Your task to perform on an android device: manage bookmarks in the chrome app Image 0: 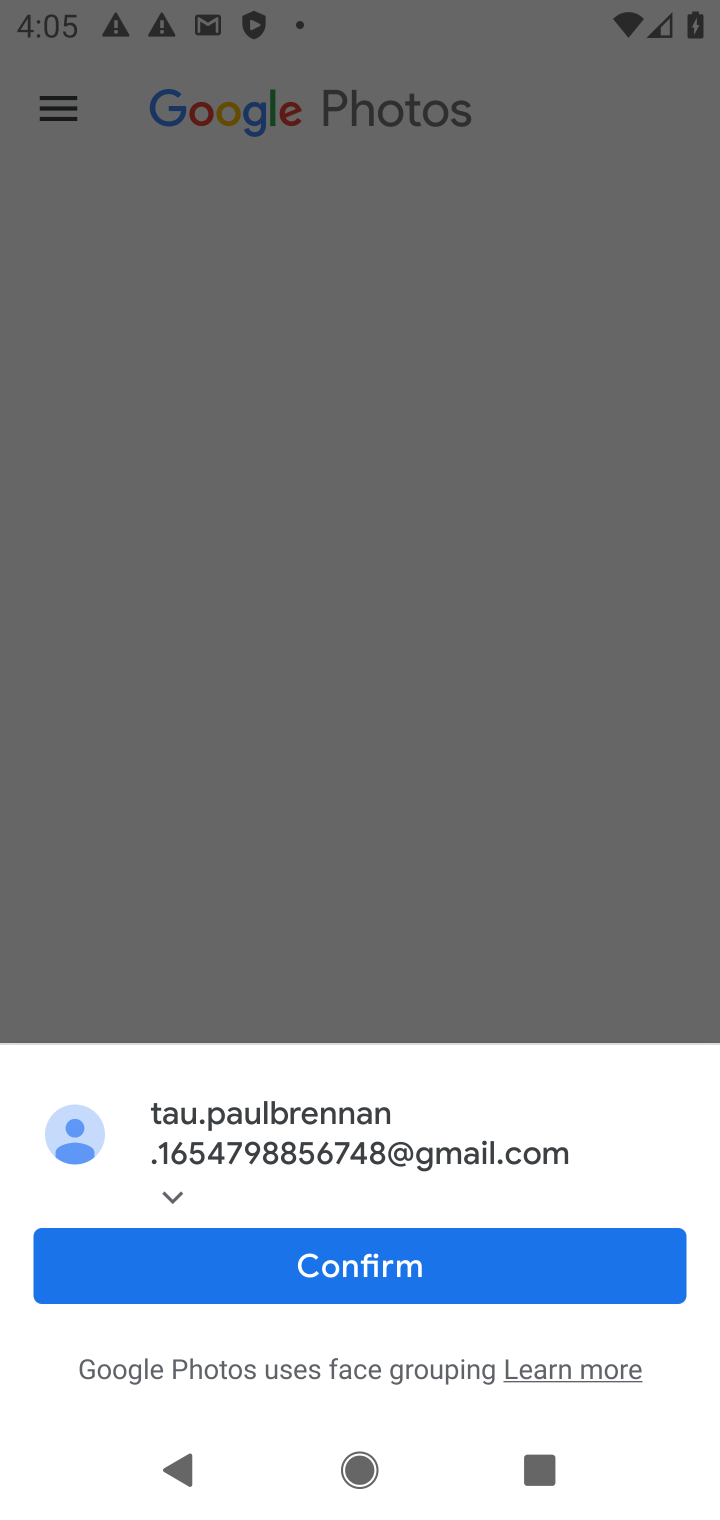
Step 0: press home button
Your task to perform on an android device: manage bookmarks in the chrome app Image 1: 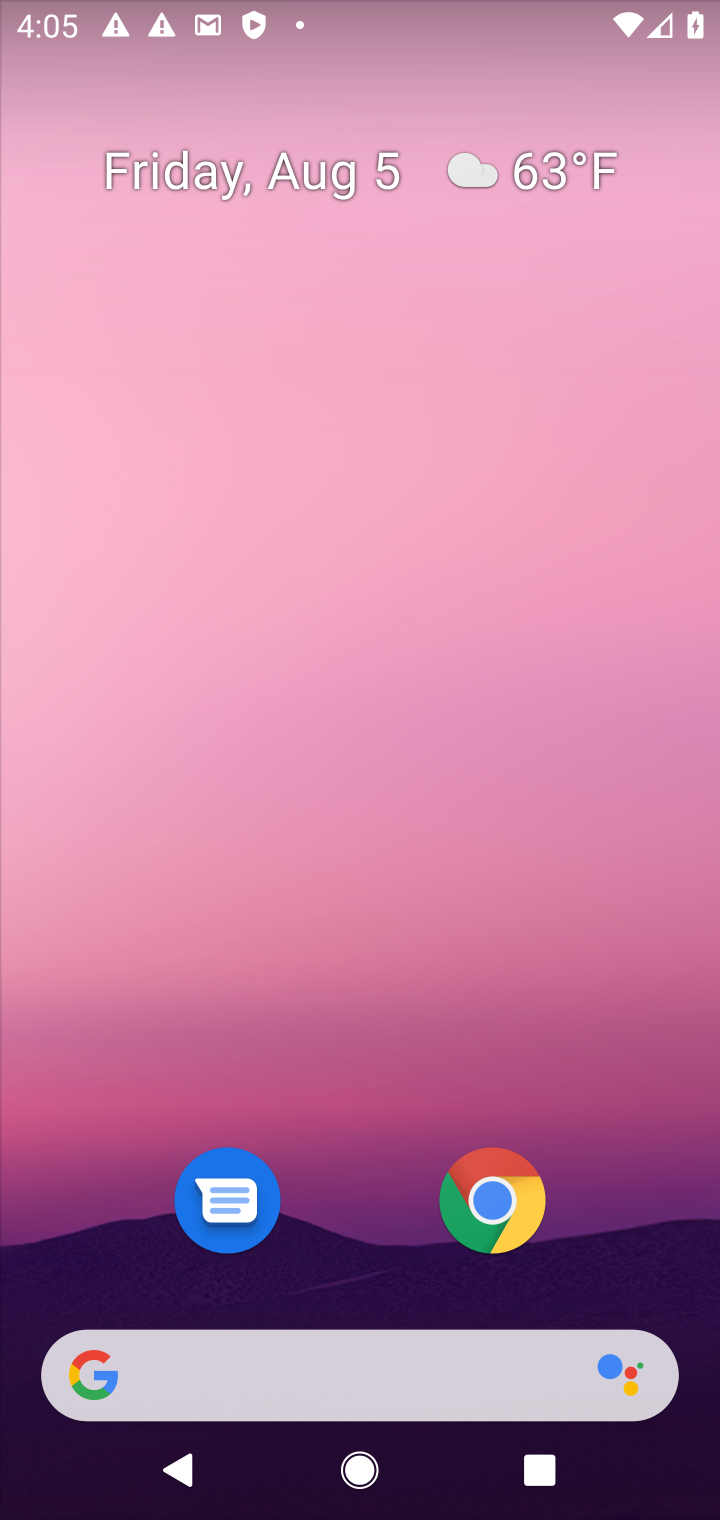
Step 1: click (521, 1212)
Your task to perform on an android device: manage bookmarks in the chrome app Image 2: 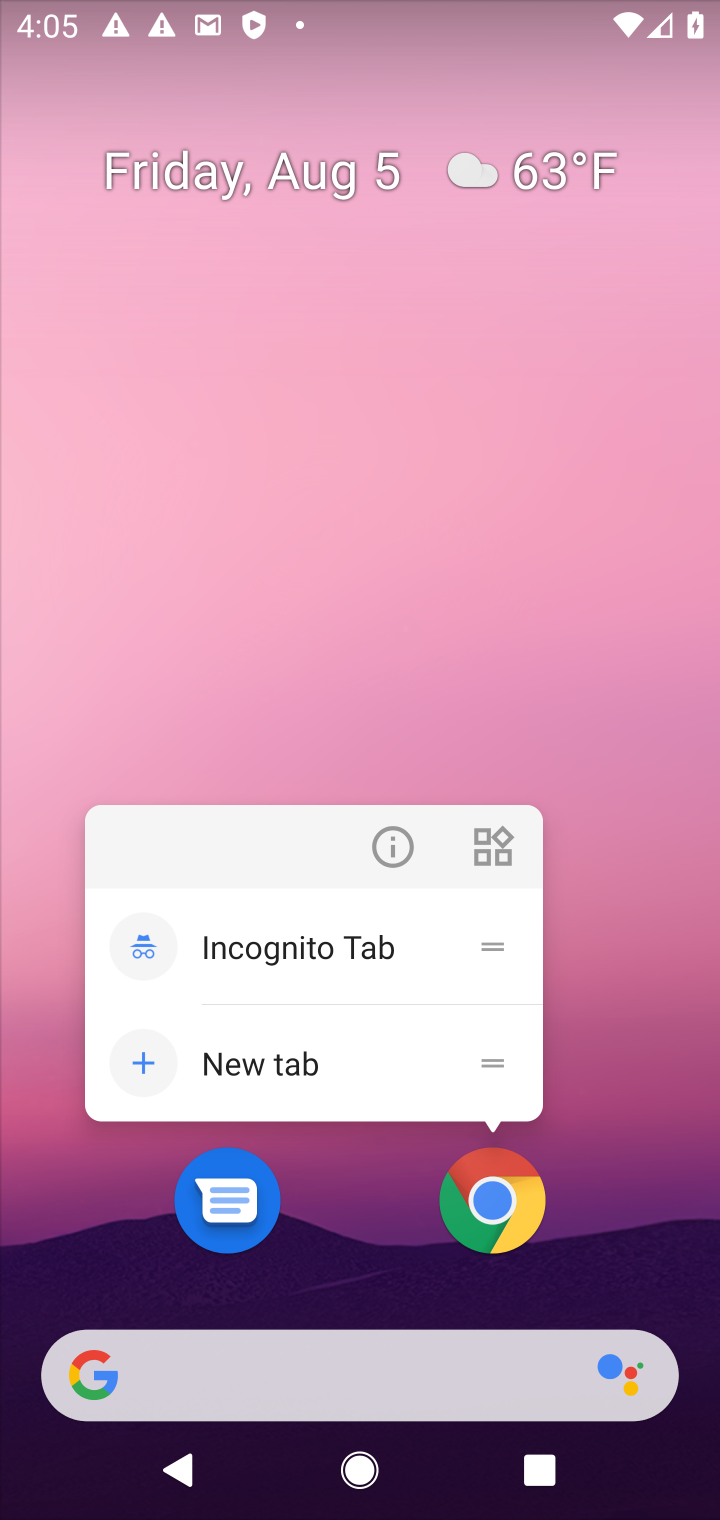
Step 2: click (521, 1212)
Your task to perform on an android device: manage bookmarks in the chrome app Image 3: 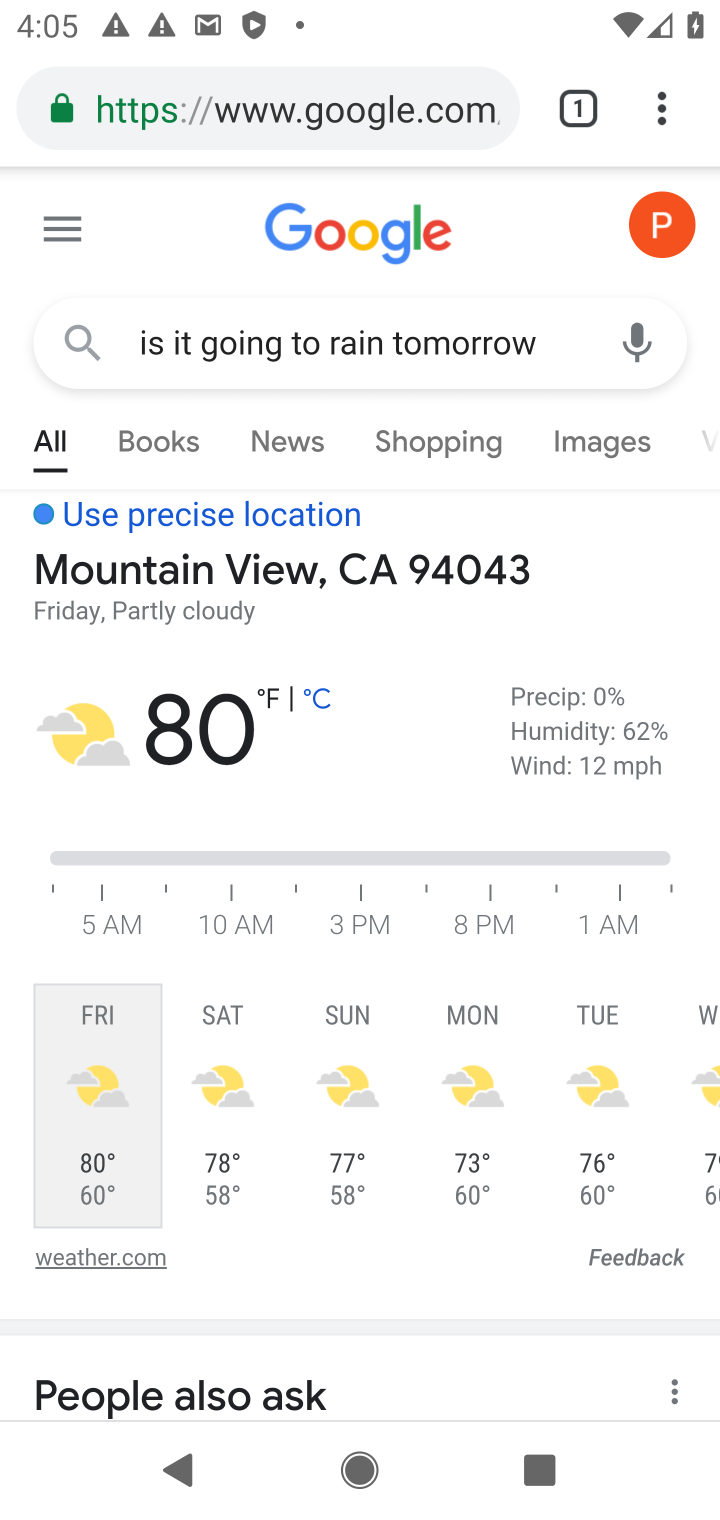
Step 3: click (658, 120)
Your task to perform on an android device: manage bookmarks in the chrome app Image 4: 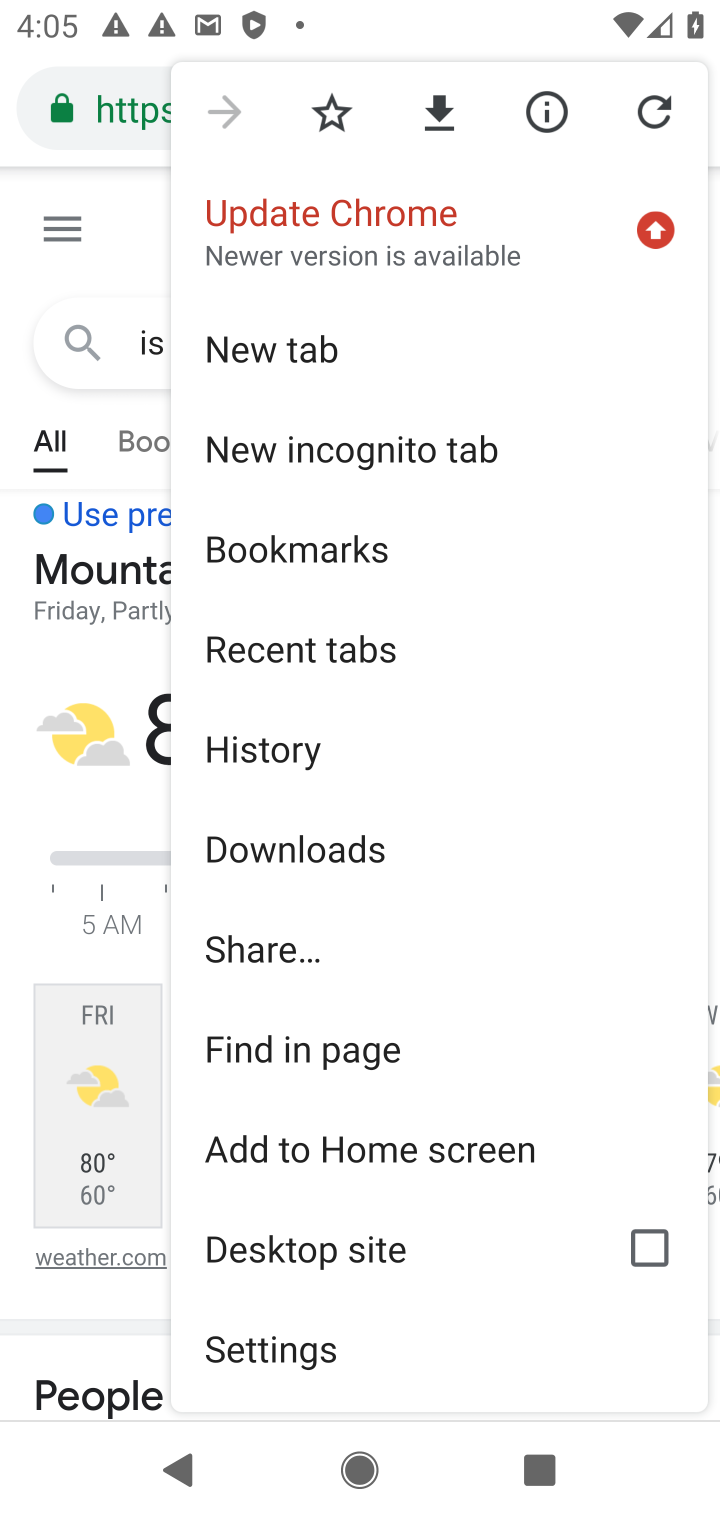
Step 4: drag from (375, 1324) to (333, 1053)
Your task to perform on an android device: manage bookmarks in the chrome app Image 5: 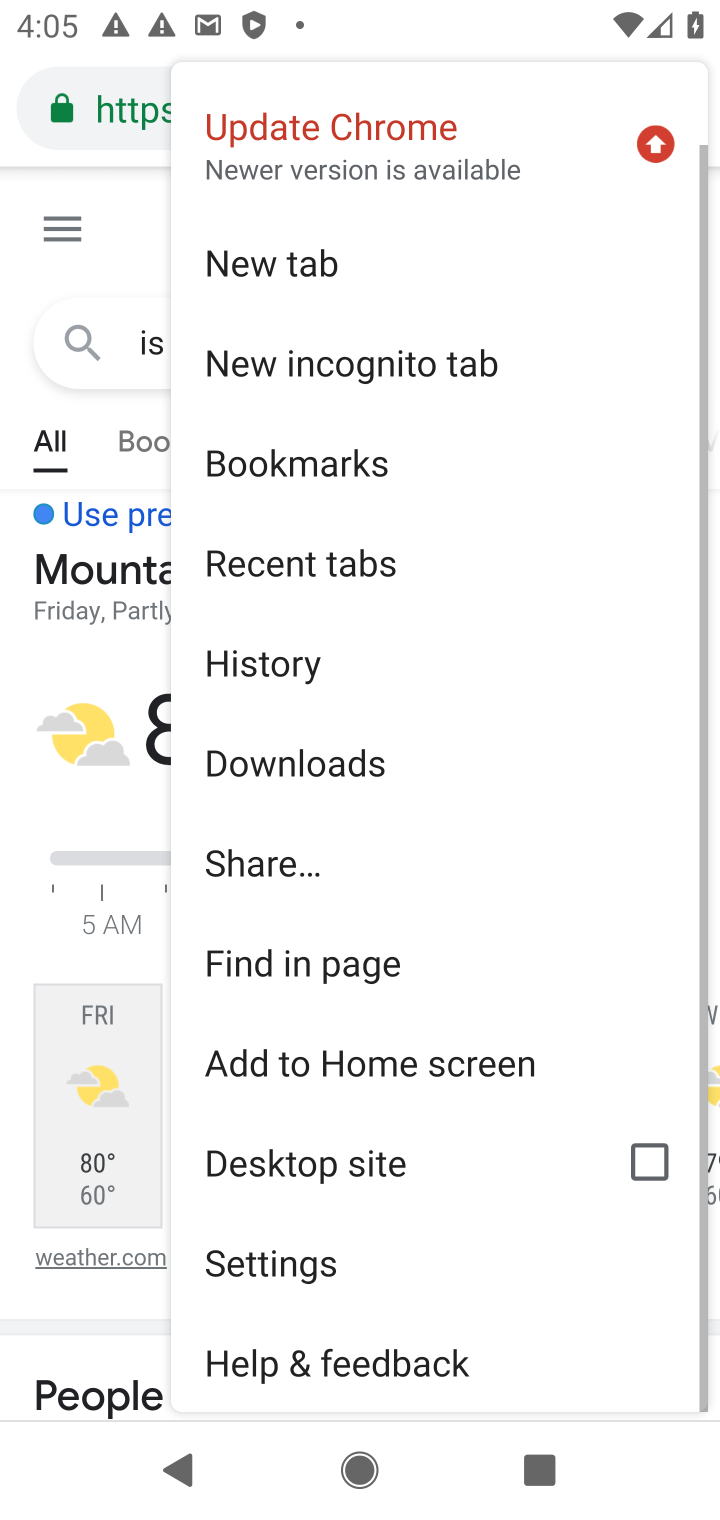
Step 5: click (386, 462)
Your task to perform on an android device: manage bookmarks in the chrome app Image 6: 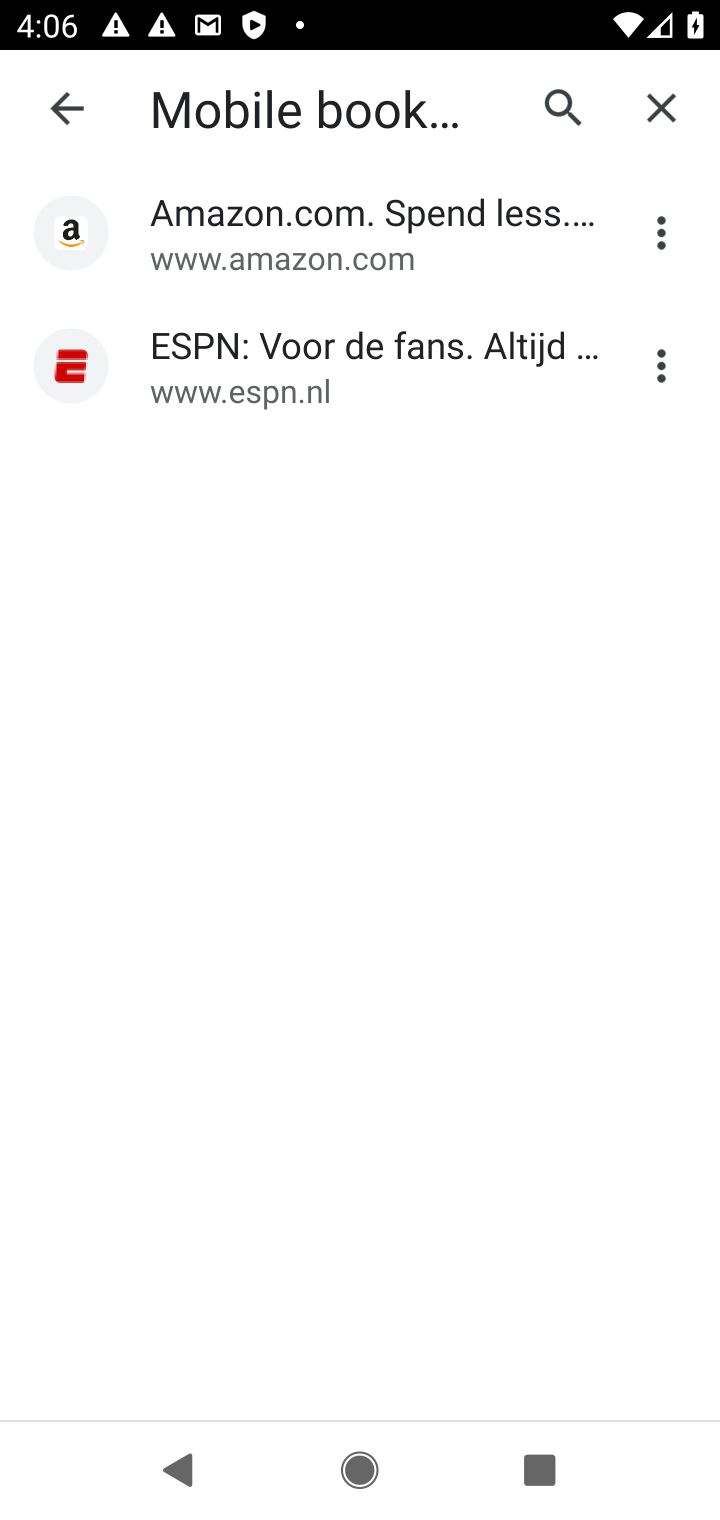
Step 6: click (443, 364)
Your task to perform on an android device: manage bookmarks in the chrome app Image 7: 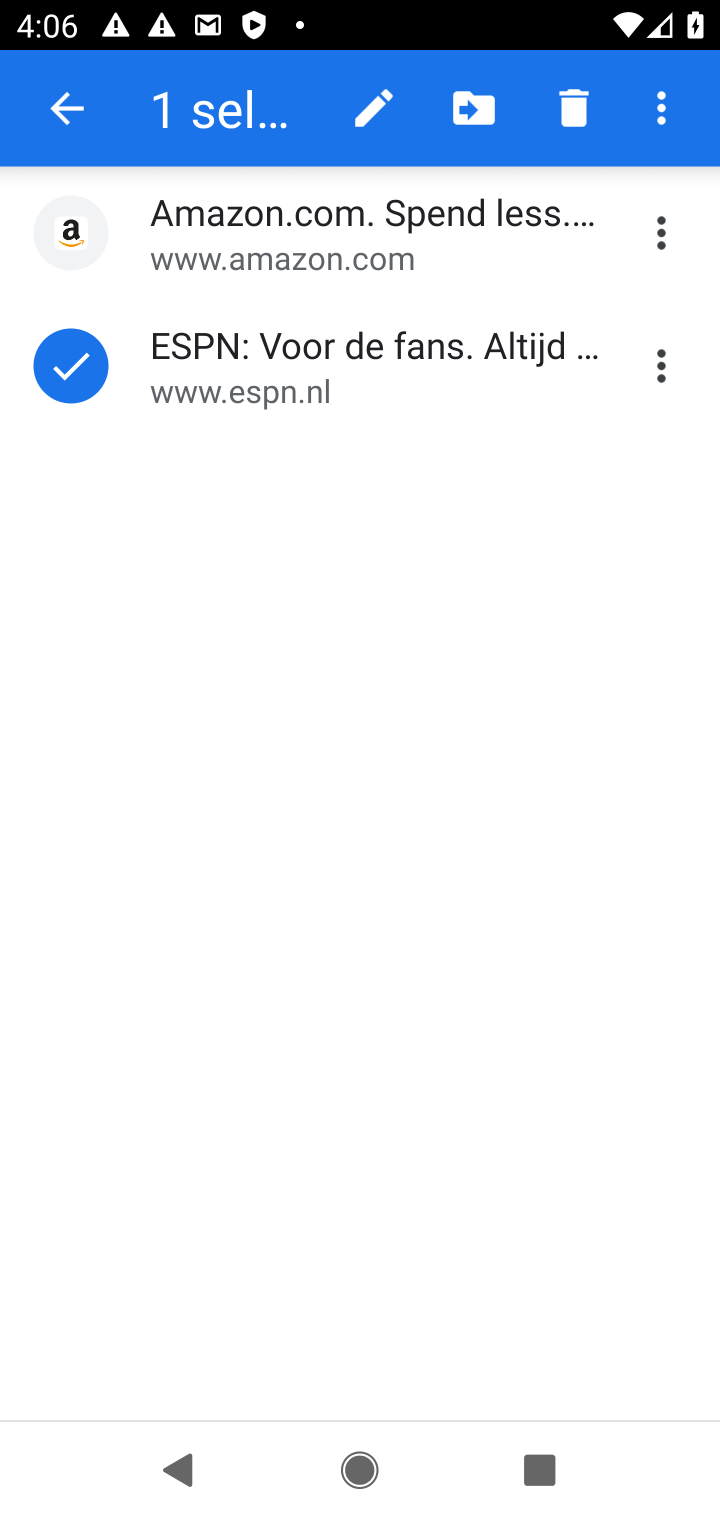
Step 7: click (476, 116)
Your task to perform on an android device: manage bookmarks in the chrome app Image 8: 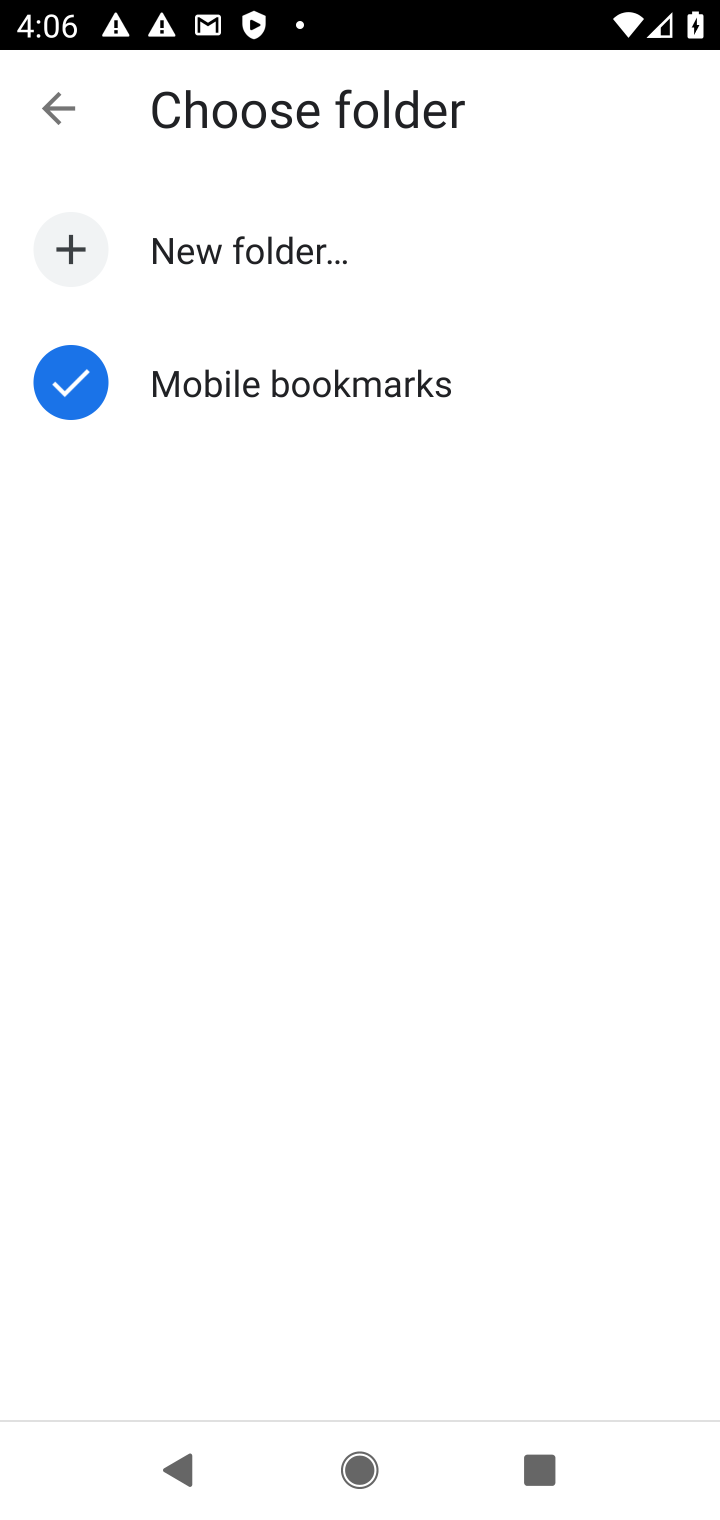
Step 8: click (431, 374)
Your task to perform on an android device: manage bookmarks in the chrome app Image 9: 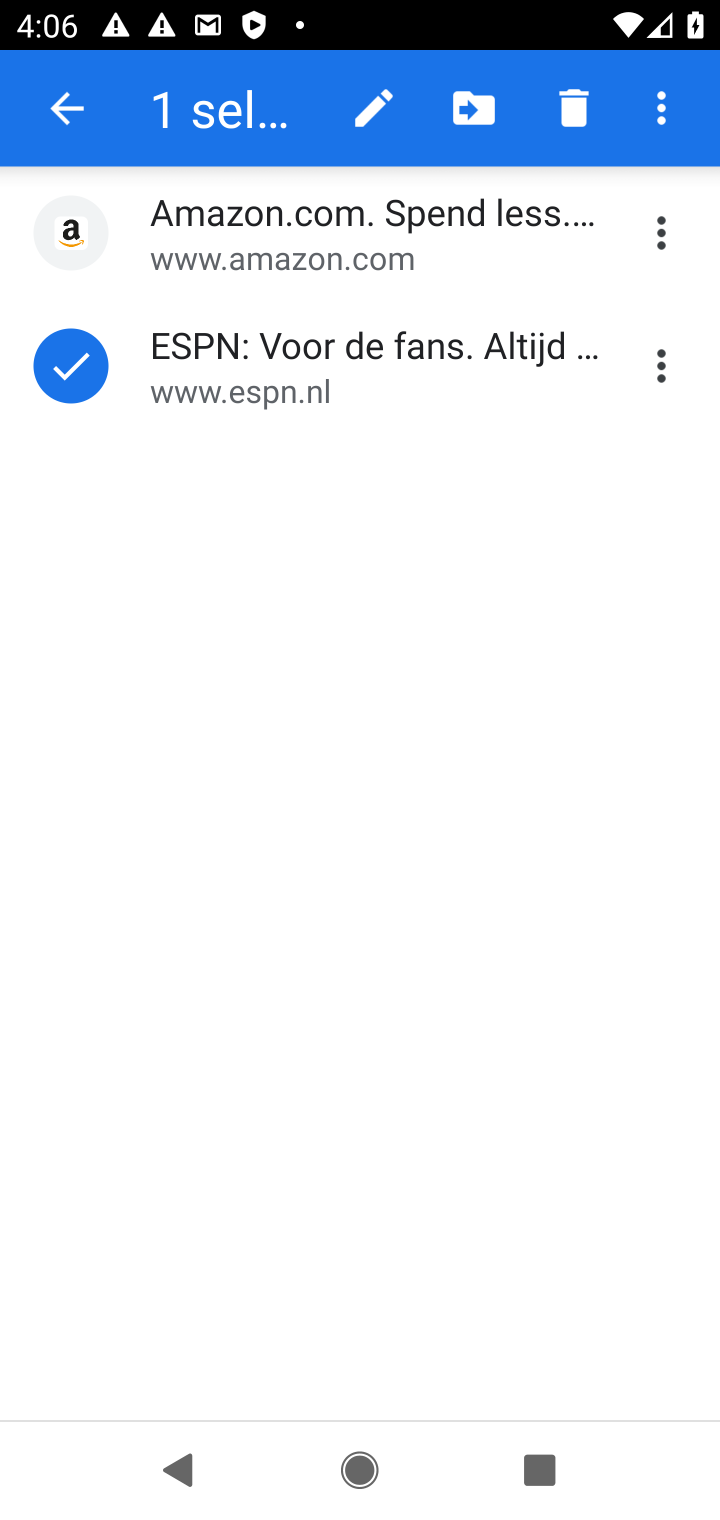
Step 9: click (464, 129)
Your task to perform on an android device: manage bookmarks in the chrome app Image 10: 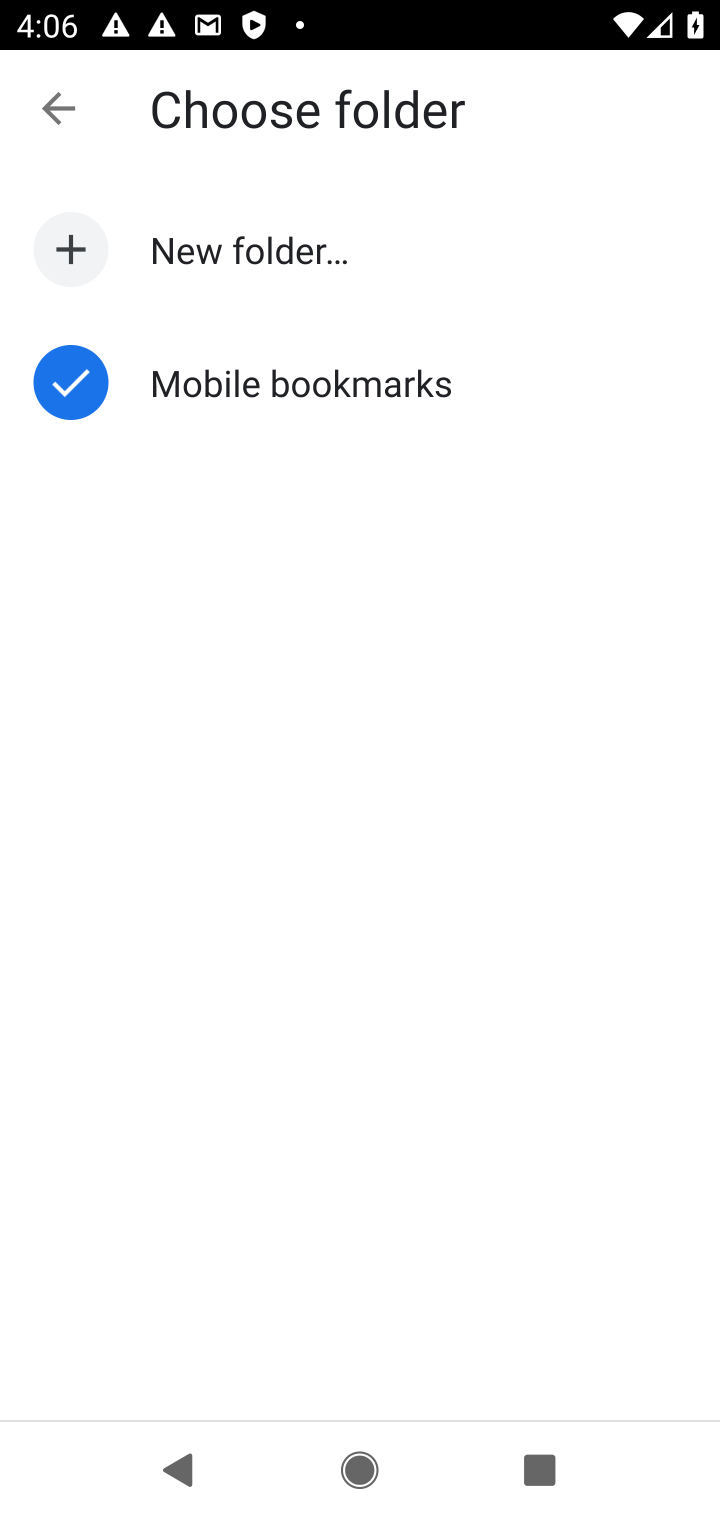
Step 10: click (386, 397)
Your task to perform on an android device: manage bookmarks in the chrome app Image 11: 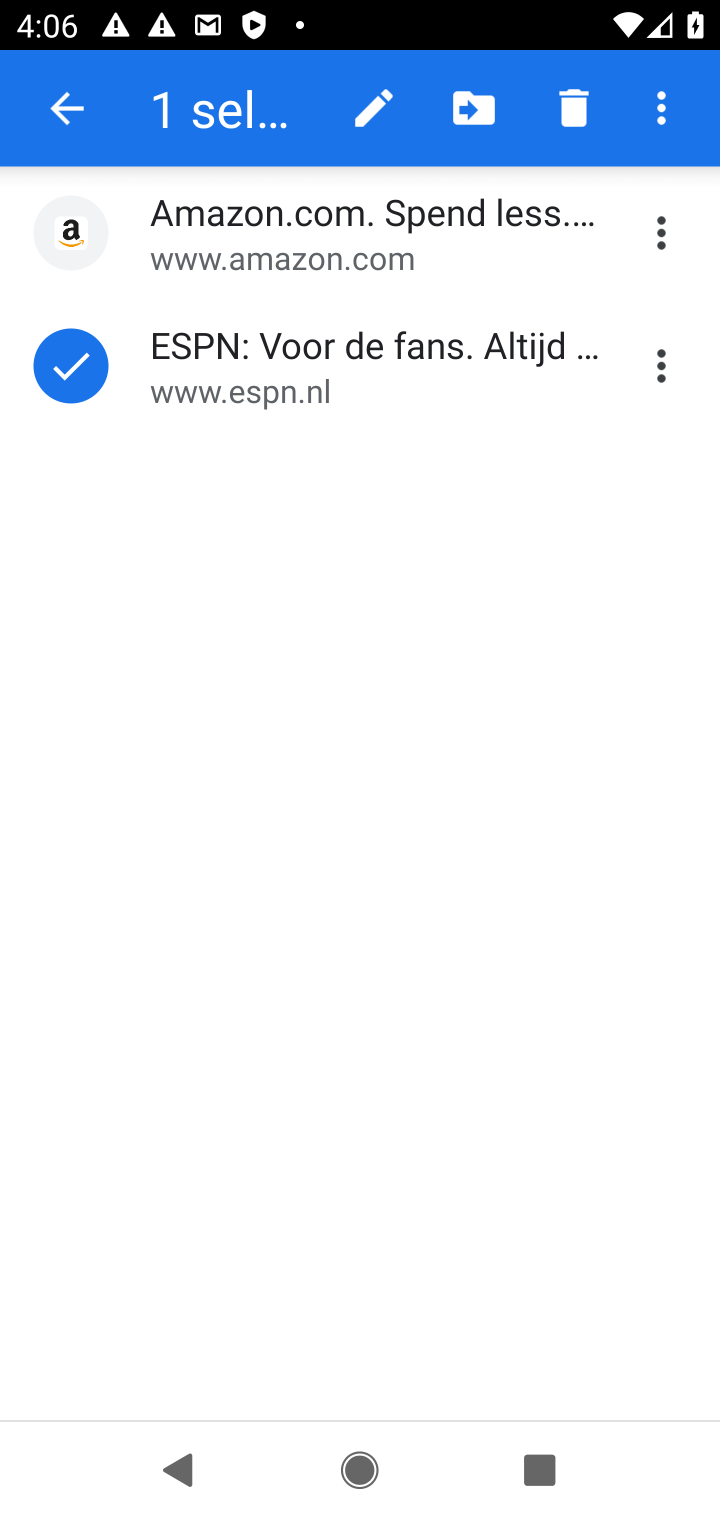
Step 11: task complete